Your task to perform on an android device: find photos in the google photos app Image 0: 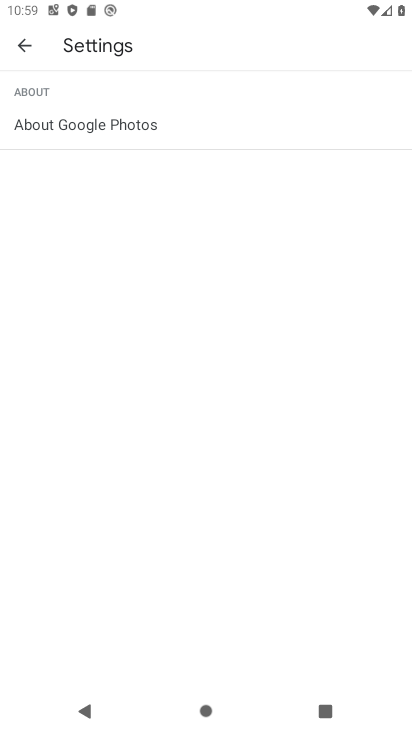
Step 0: click (15, 46)
Your task to perform on an android device: find photos in the google photos app Image 1: 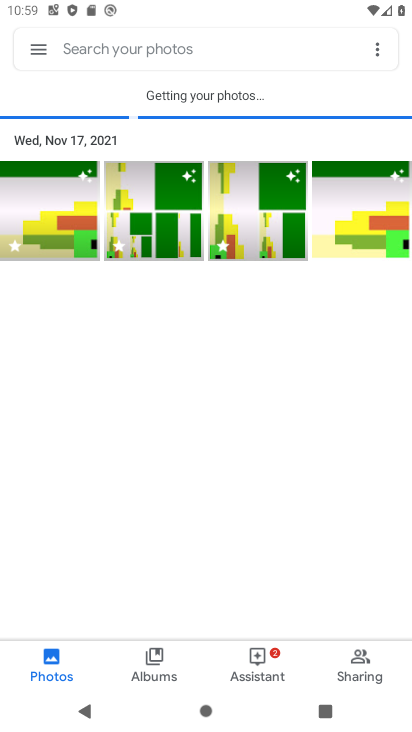
Step 1: press back button
Your task to perform on an android device: find photos in the google photos app Image 2: 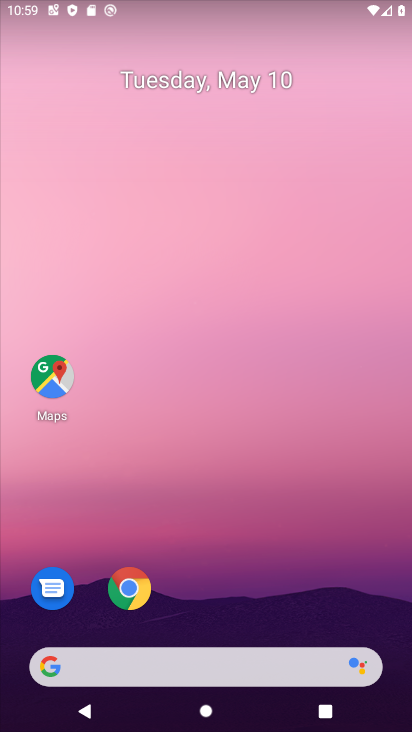
Step 2: drag from (308, 593) to (105, 186)
Your task to perform on an android device: find photos in the google photos app Image 3: 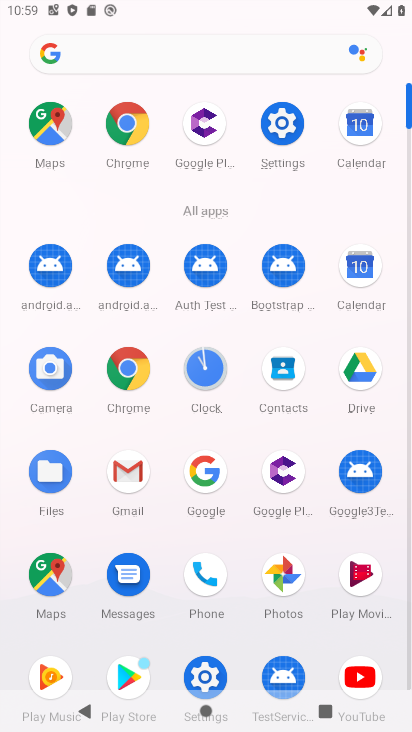
Step 3: click (203, 469)
Your task to perform on an android device: find photos in the google photos app Image 4: 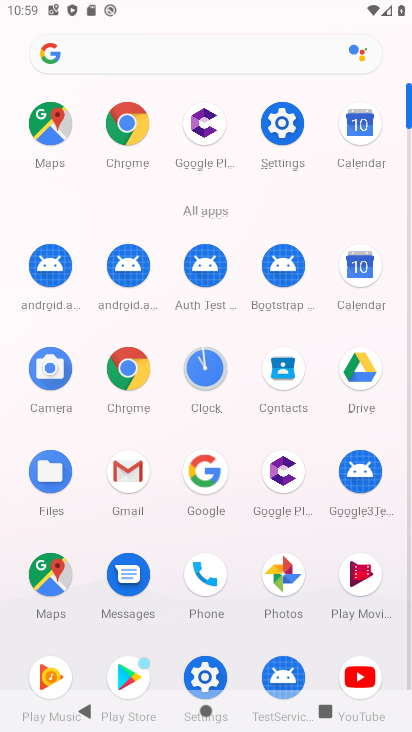
Step 4: click (213, 472)
Your task to perform on an android device: find photos in the google photos app Image 5: 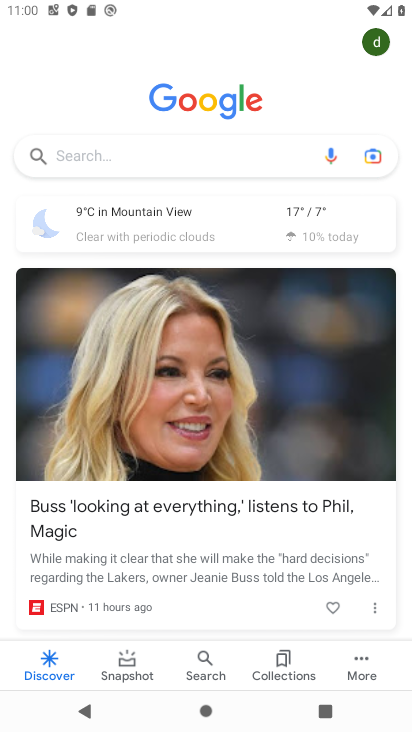
Step 5: press back button
Your task to perform on an android device: find photos in the google photos app Image 6: 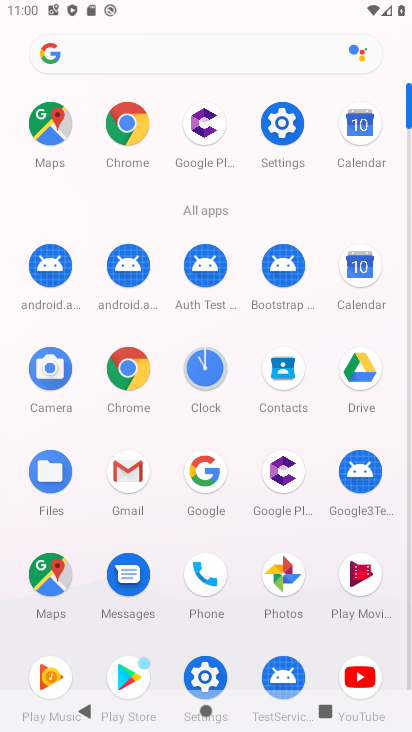
Step 6: click (280, 568)
Your task to perform on an android device: find photos in the google photos app Image 7: 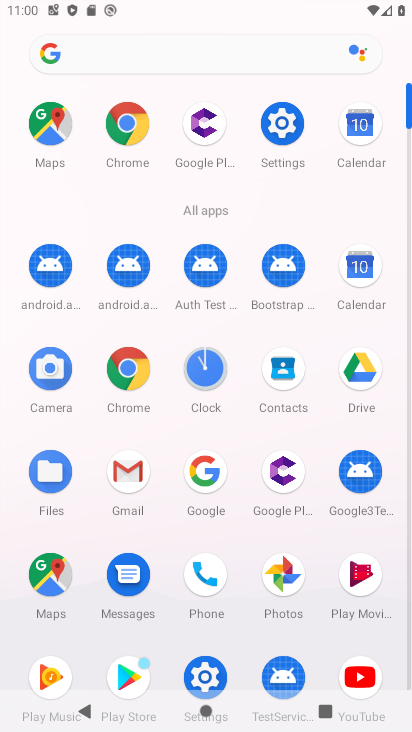
Step 7: click (278, 572)
Your task to perform on an android device: find photos in the google photos app Image 8: 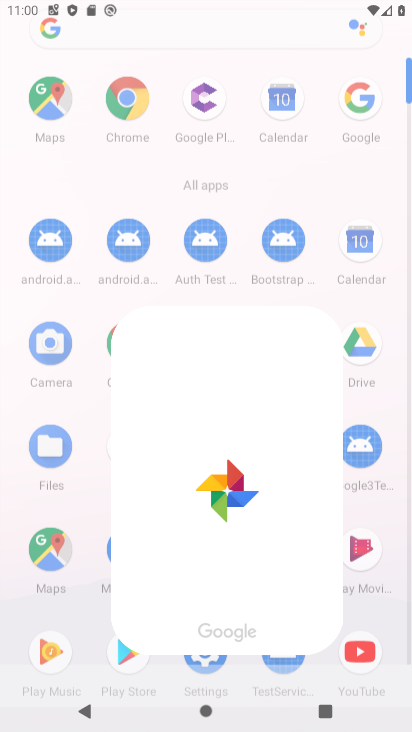
Step 8: click (278, 572)
Your task to perform on an android device: find photos in the google photos app Image 9: 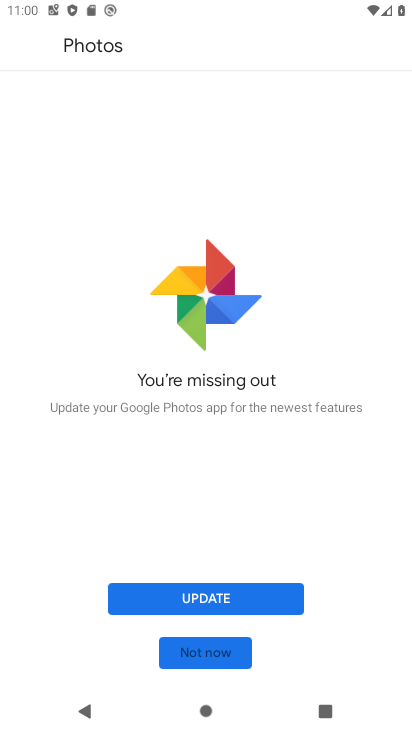
Step 9: click (199, 654)
Your task to perform on an android device: find photos in the google photos app Image 10: 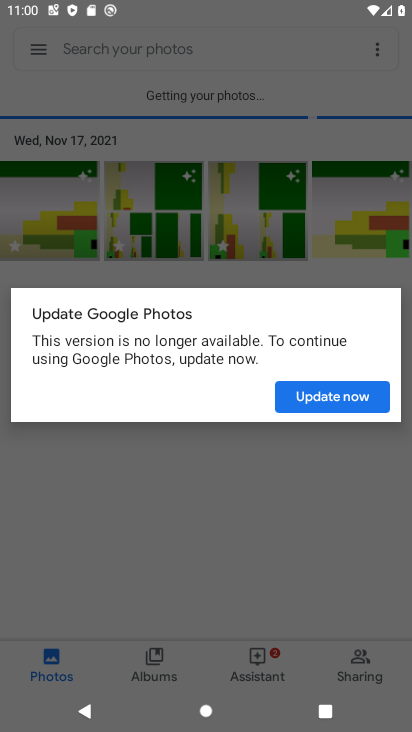
Step 10: drag from (267, 489) to (256, 528)
Your task to perform on an android device: find photos in the google photos app Image 11: 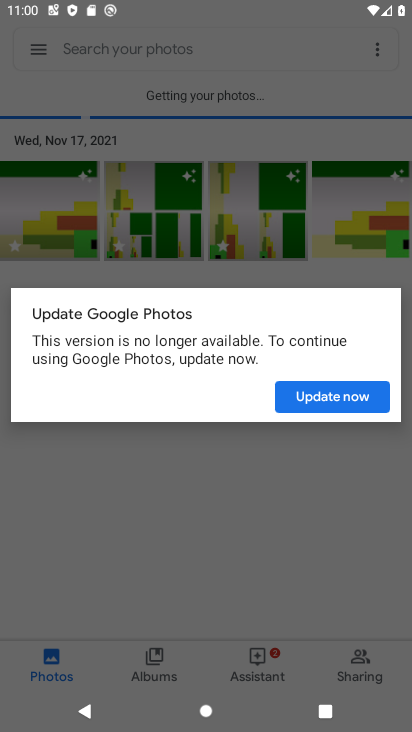
Step 11: click (251, 522)
Your task to perform on an android device: find photos in the google photos app Image 12: 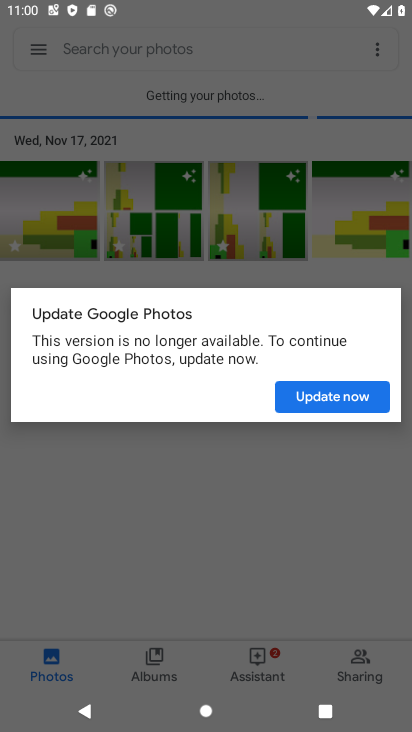
Step 12: click (260, 491)
Your task to perform on an android device: find photos in the google photos app Image 13: 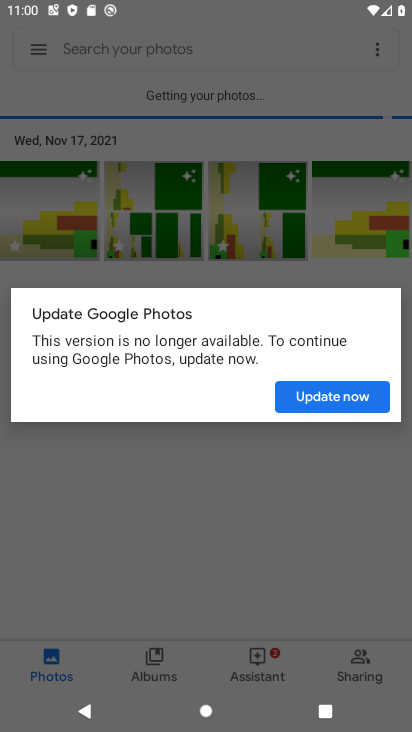
Step 13: click (261, 486)
Your task to perform on an android device: find photos in the google photos app Image 14: 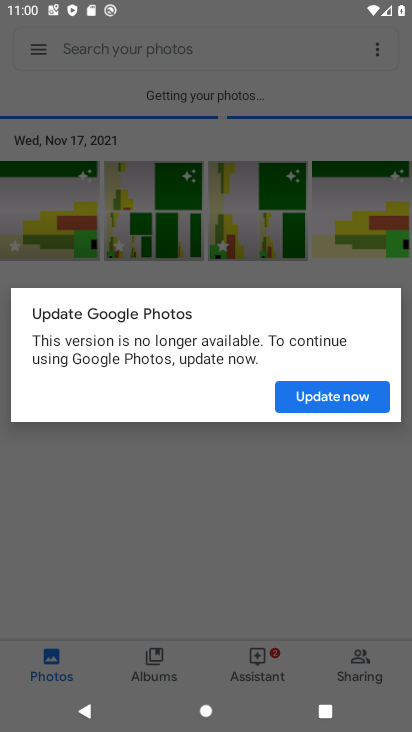
Step 14: click (320, 396)
Your task to perform on an android device: find photos in the google photos app Image 15: 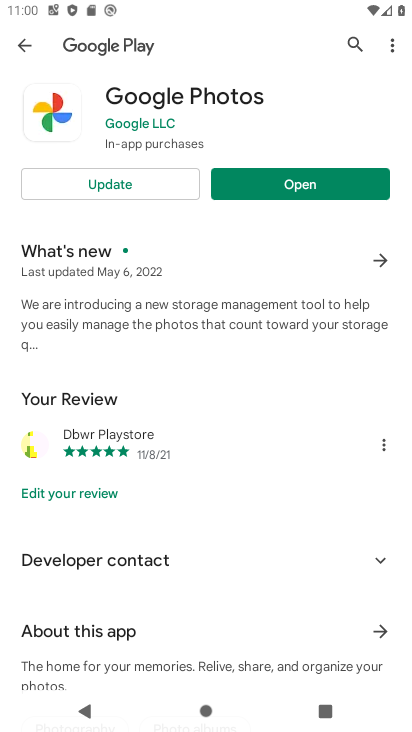
Step 15: click (113, 178)
Your task to perform on an android device: find photos in the google photos app Image 16: 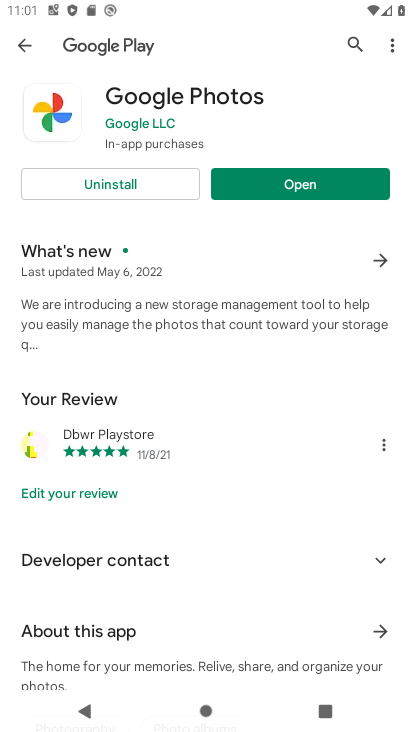
Step 16: click (304, 191)
Your task to perform on an android device: find photos in the google photos app Image 17: 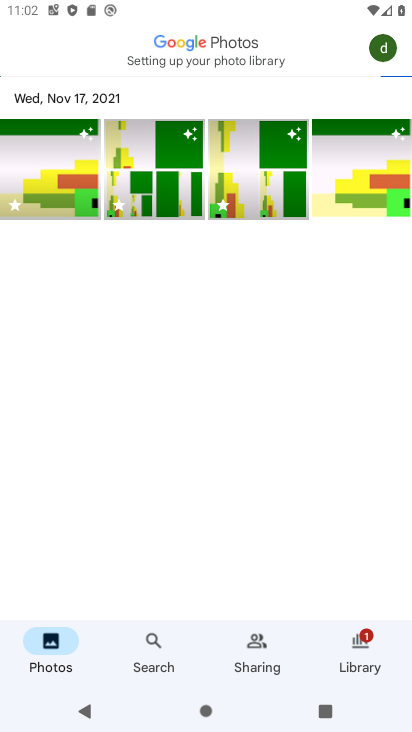
Step 17: task complete